Your task to perform on an android device: Open Google Maps Image 0: 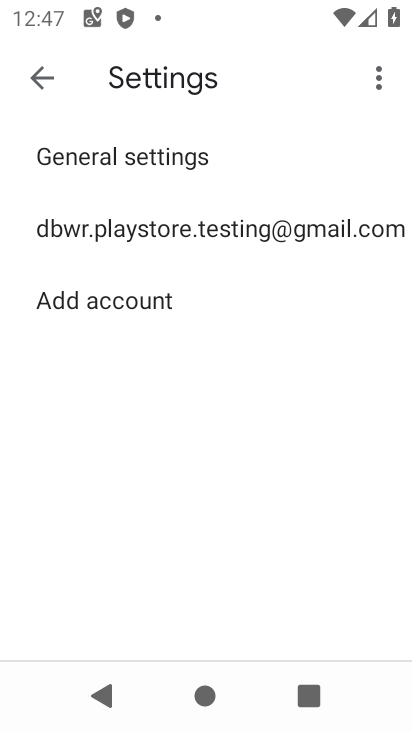
Step 0: press home button
Your task to perform on an android device: Open Google Maps Image 1: 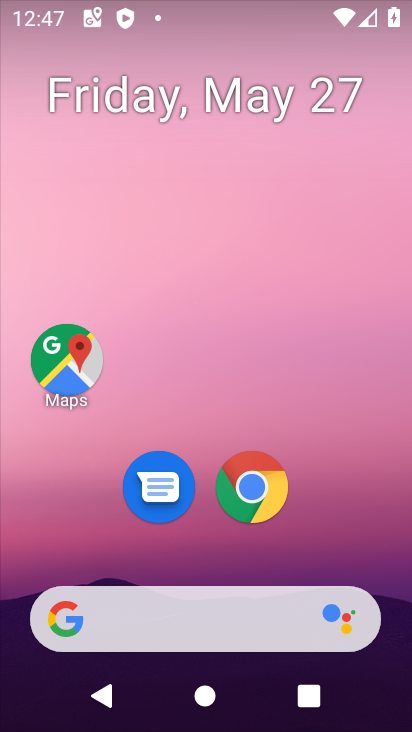
Step 1: click (61, 361)
Your task to perform on an android device: Open Google Maps Image 2: 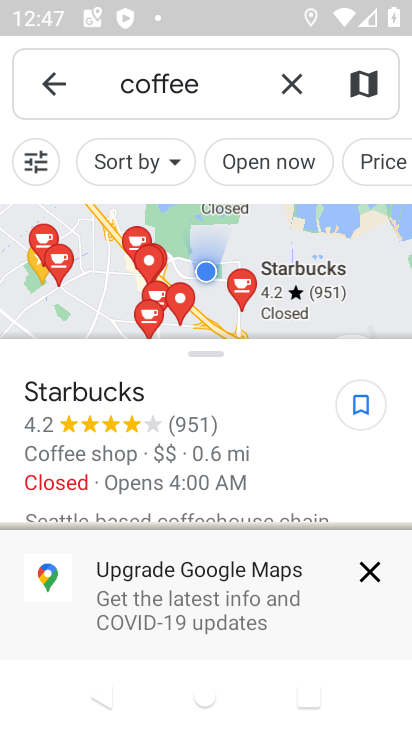
Step 2: task complete